Your task to perform on an android device: make emails show in primary in the gmail app Image 0: 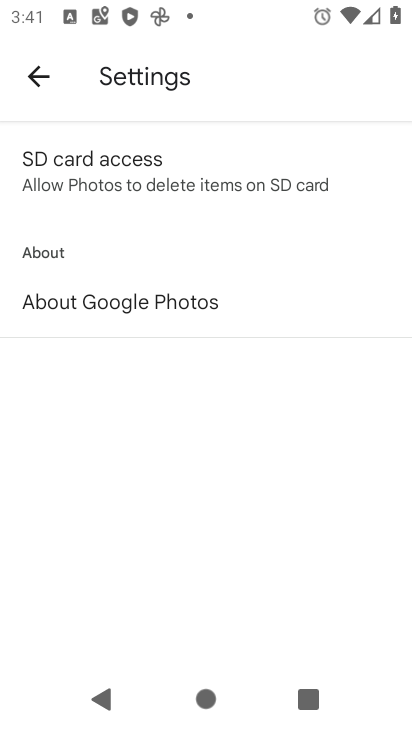
Step 0: press home button
Your task to perform on an android device: make emails show in primary in the gmail app Image 1: 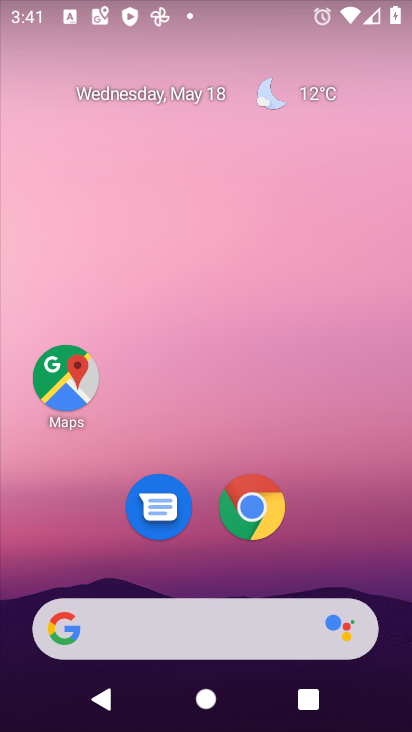
Step 1: drag from (393, 623) to (271, 61)
Your task to perform on an android device: make emails show in primary in the gmail app Image 2: 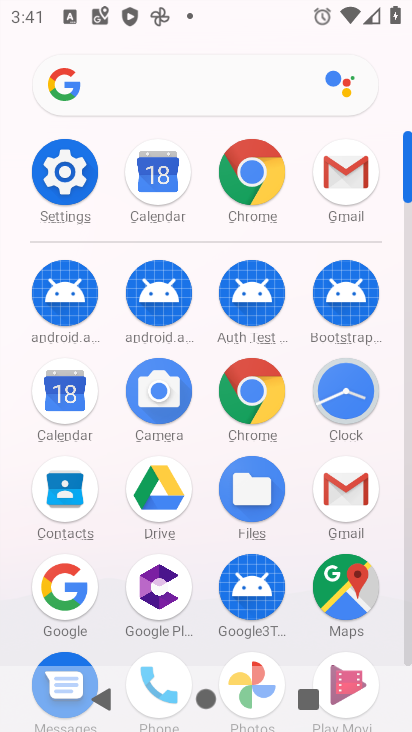
Step 2: click (405, 650)
Your task to perform on an android device: make emails show in primary in the gmail app Image 3: 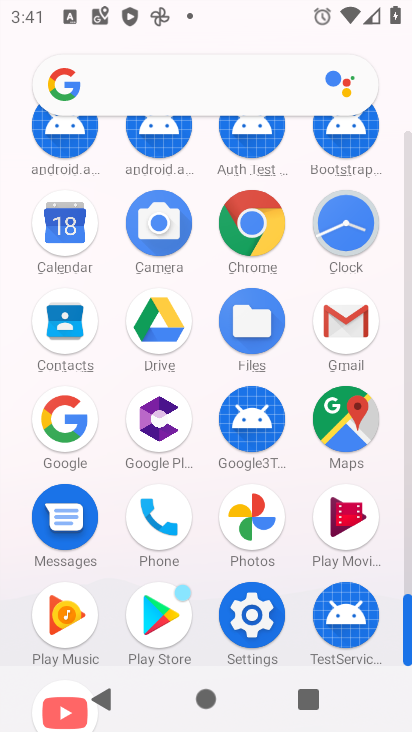
Step 3: click (405, 650)
Your task to perform on an android device: make emails show in primary in the gmail app Image 4: 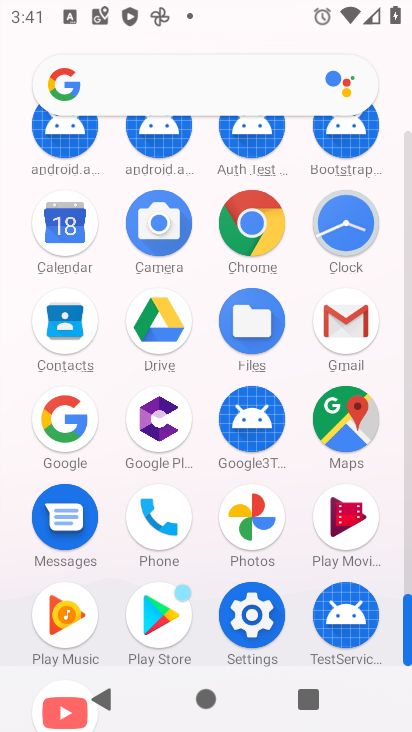
Step 4: click (349, 323)
Your task to perform on an android device: make emails show in primary in the gmail app Image 5: 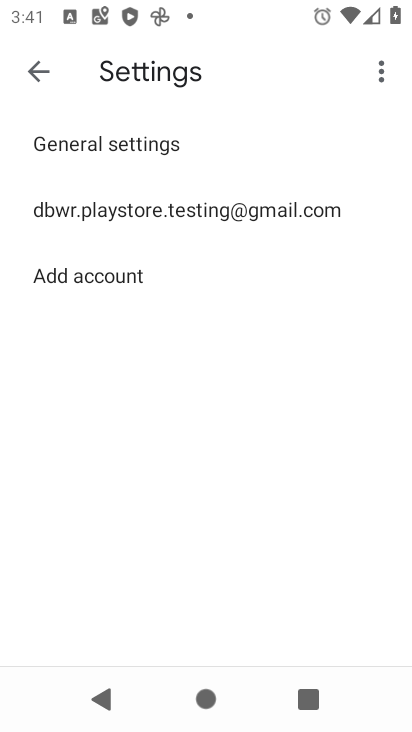
Step 5: click (114, 217)
Your task to perform on an android device: make emails show in primary in the gmail app Image 6: 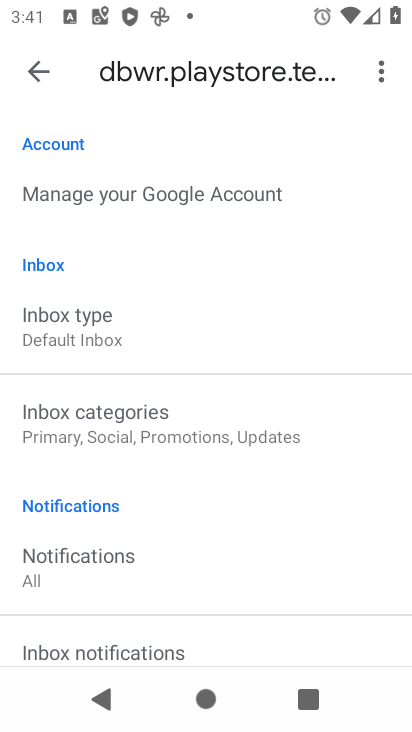
Step 6: click (97, 402)
Your task to perform on an android device: make emails show in primary in the gmail app Image 7: 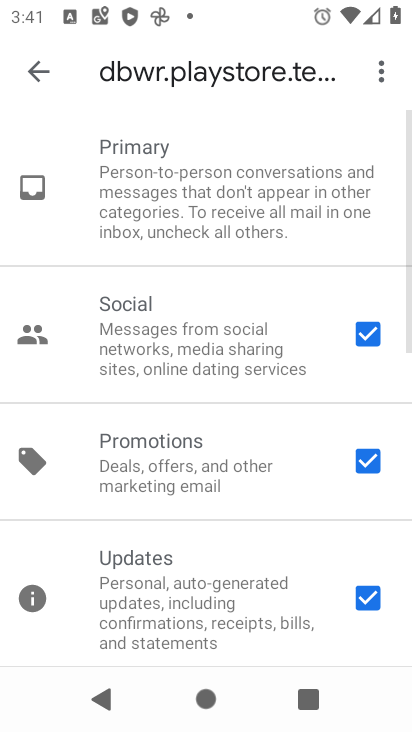
Step 7: click (362, 335)
Your task to perform on an android device: make emails show in primary in the gmail app Image 8: 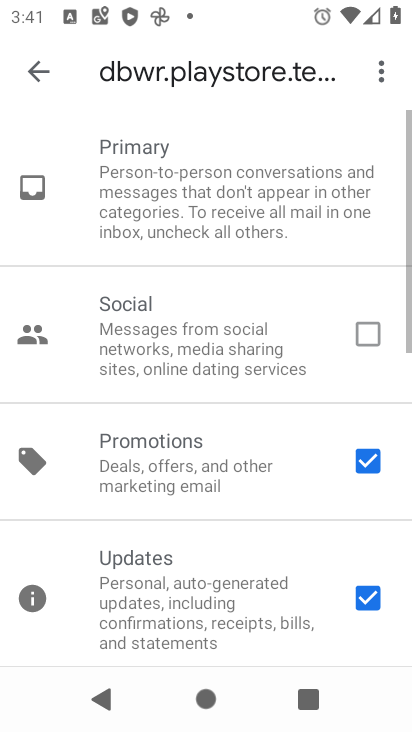
Step 8: click (364, 467)
Your task to perform on an android device: make emails show in primary in the gmail app Image 9: 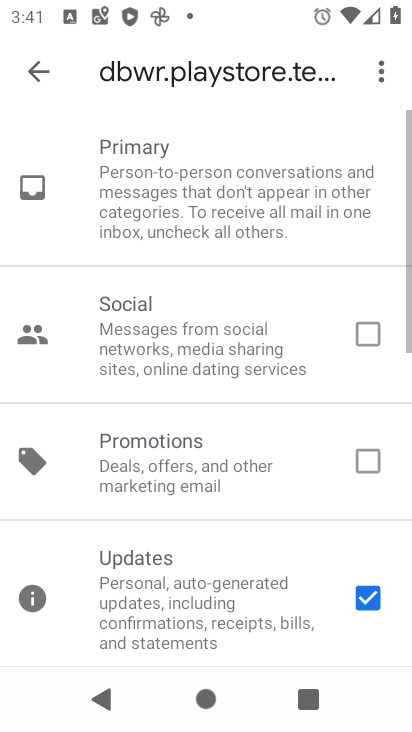
Step 9: click (365, 597)
Your task to perform on an android device: make emails show in primary in the gmail app Image 10: 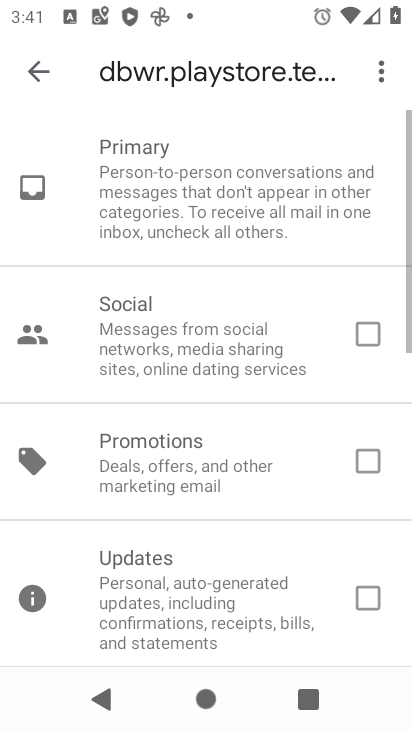
Step 10: task complete